Your task to perform on an android device: Go to location settings Image 0: 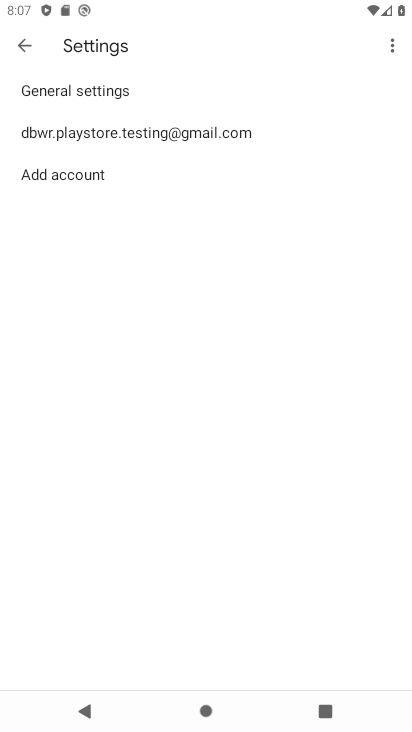
Step 0: press home button
Your task to perform on an android device: Go to location settings Image 1: 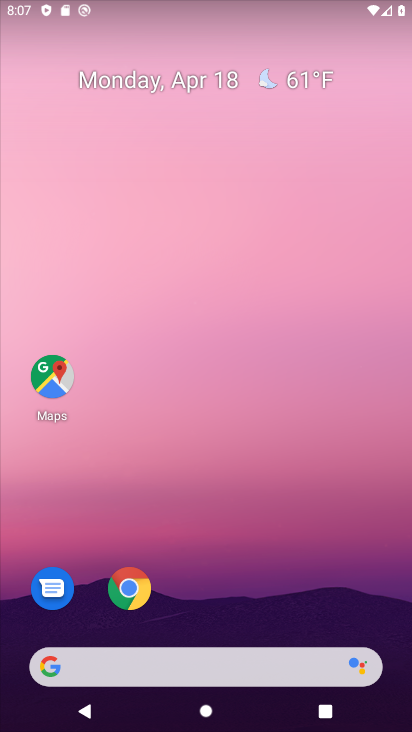
Step 1: drag from (378, 626) to (365, 292)
Your task to perform on an android device: Go to location settings Image 2: 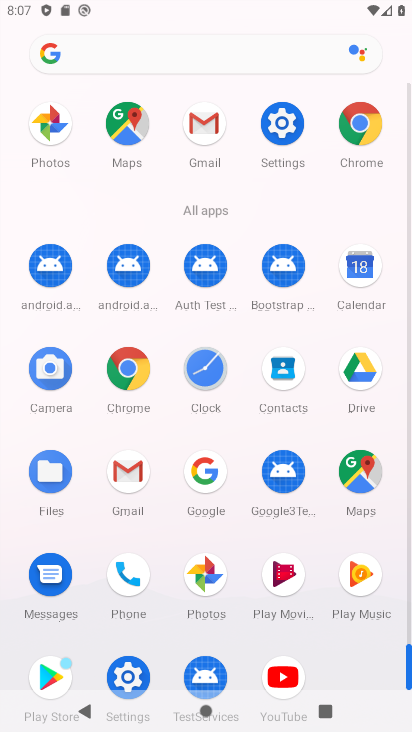
Step 2: click (121, 668)
Your task to perform on an android device: Go to location settings Image 3: 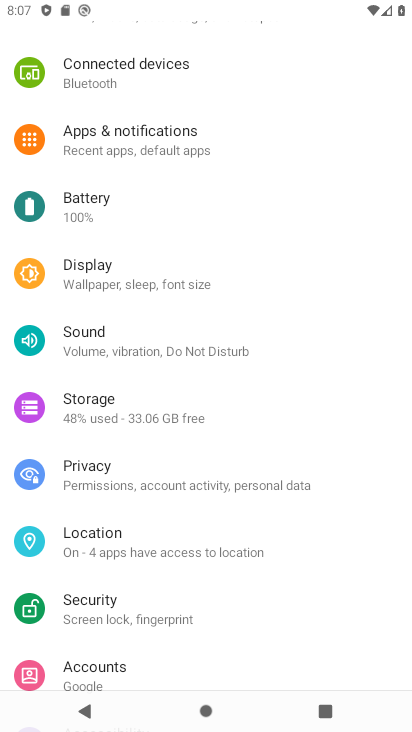
Step 3: click (102, 541)
Your task to perform on an android device: Go to location settings Image 4: 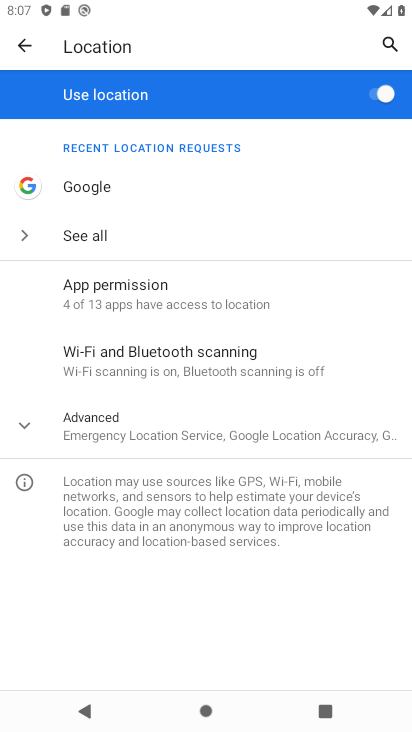
Step 4: click (25, 423)
Your task to perform on an android device: Go to location settings Image 5: 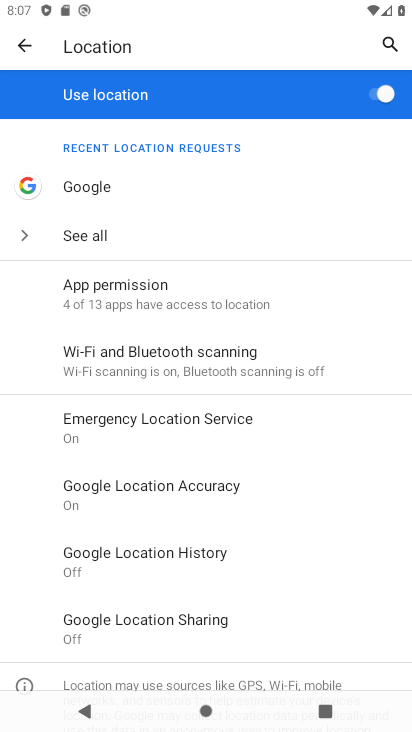
Step 5: task complete